Your task to perform on an android device: open a bookmark in the chrome app Image 0: 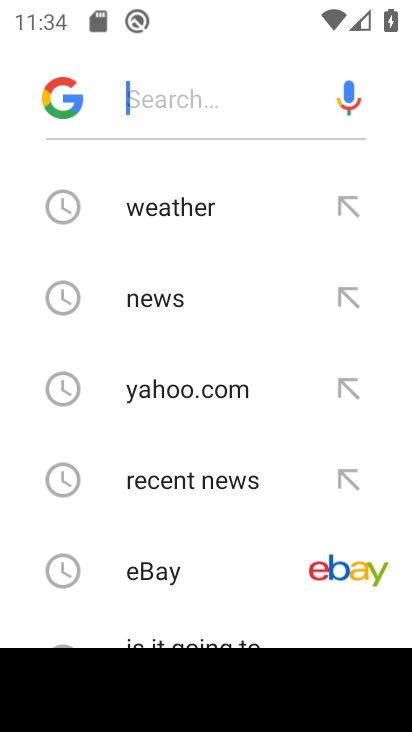
Step 0: press home button
Your task to perform on an android device: open a bookmark in the chrome app Image 1: 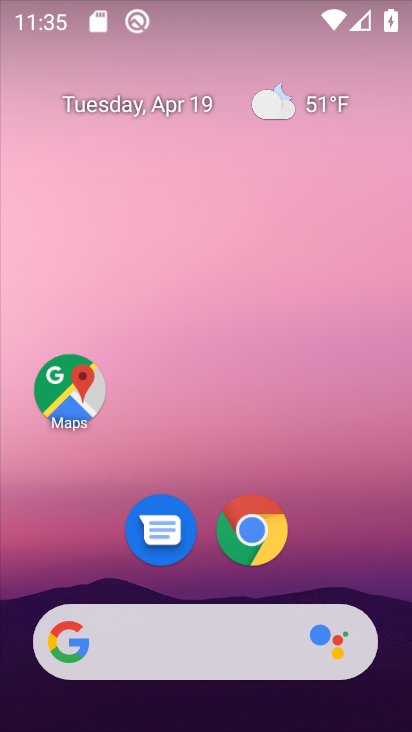
Step 1: drag from (150, 638) to (250, 33)
Your task to perform on an android device: open a bookmark in the chrome app Image 2: 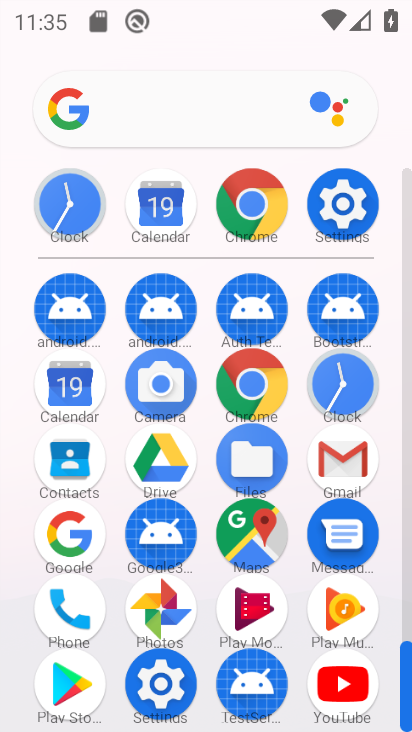
Step 2: click (254, 211)
Your task to perform on an android device: open a bookmark in the chrome app Image 3: 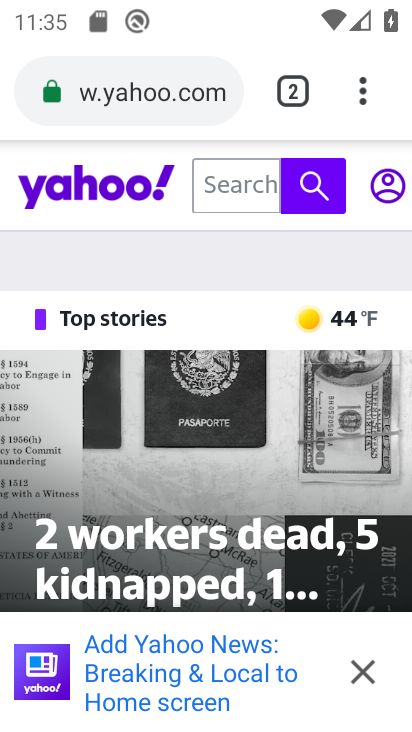
Step 3: click (360, 100)
Your task to perform on an android device: open a bookmark in the chrome app Image 4: 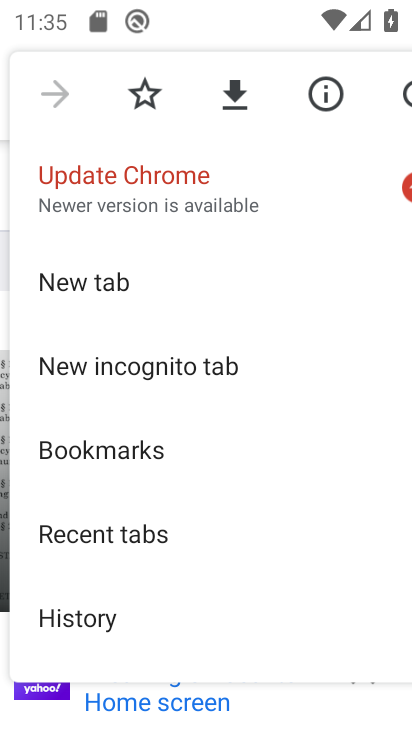
Step 4: click (105, 448)
Your task to perform on an android device: open a bookmark in the chrome app Image 5: 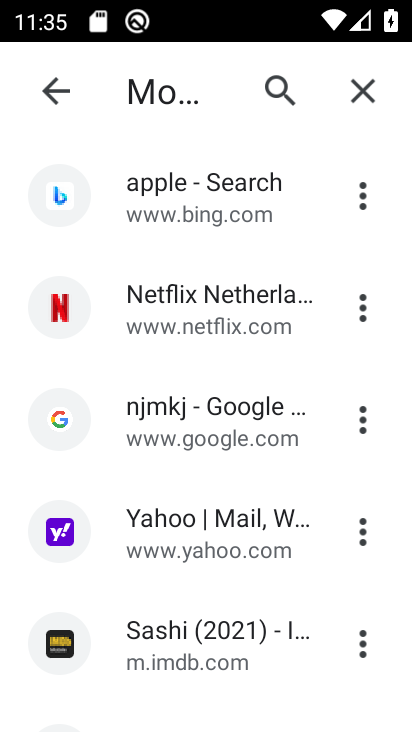
Step 5: task complete